Your task to perform on an android device: find snoozed emails in the gmail app Image 0: 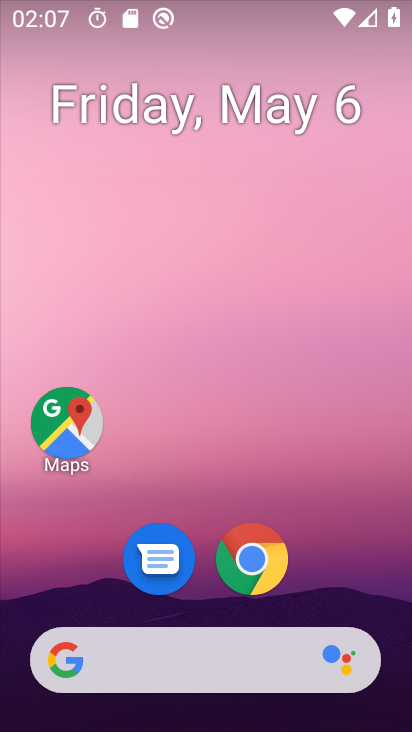
Step 0: drag from (256, 578) to (231, 53)
Your task to perform on an android device: find snoozed emails in the gmail app Image 1: 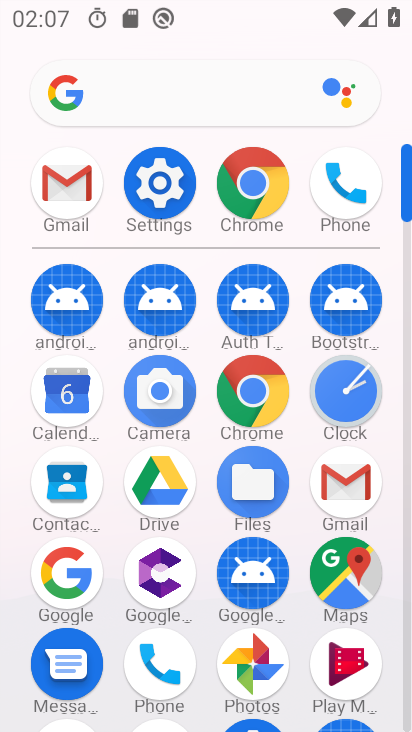
Step 1: click (338, 472)
Your task to perform on an android device: find snoozed emails in the gmail app Image 2: 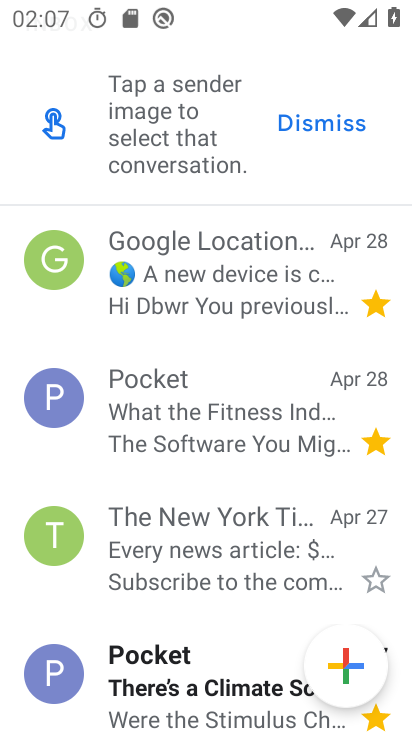
Step 2: drag from (265, 190) to (266, 655)
Your task to perform on an android device: find snoozed emails in the gmail app Image 3: 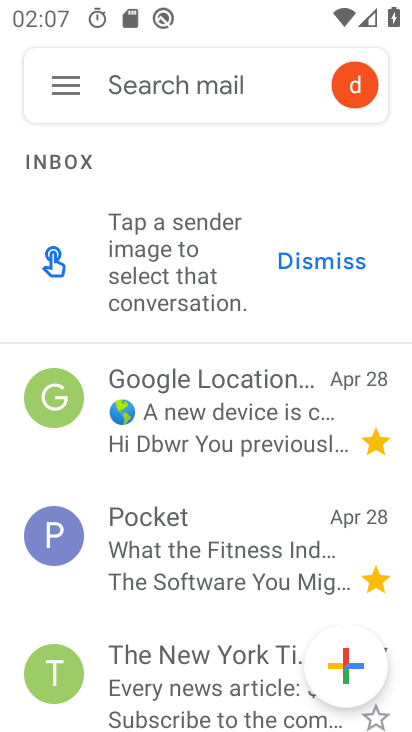
Step 3: drag from (217, 684) to (230, 131)
Your task to perform on an android device: find snoozed emails in the gmail app Image 4: 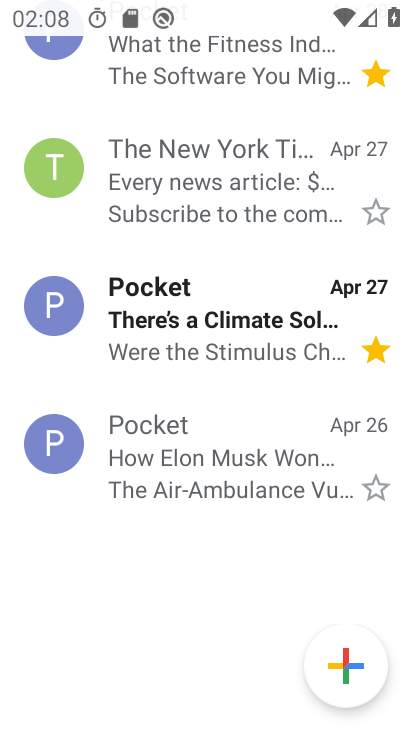
Step 4: click (229, 197)
Your task to perform on an android device: find snoozed emails in the gmail app Image 5: 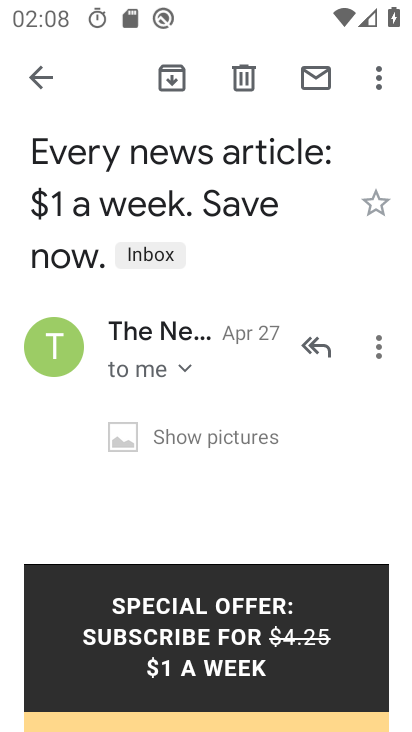
Step 5: drag from (375, 77) to (335, 189)
Your task to perform on an android device: find snoozed emails in the gmail app Image 6: 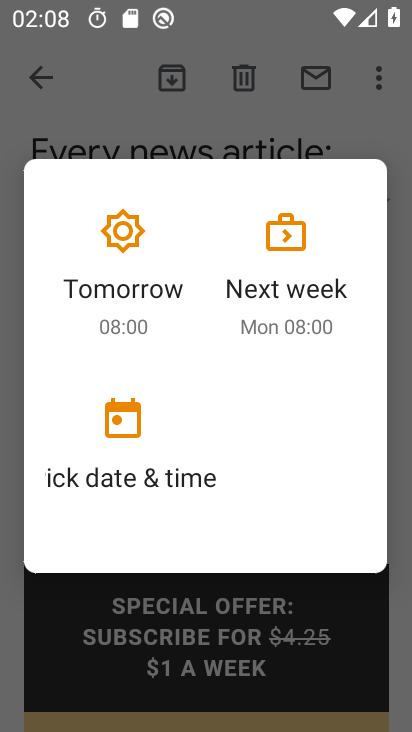
Step 6: click (105, 100)
Your task to perform on an android device: find snoozed emails in the gmail app Image 7: 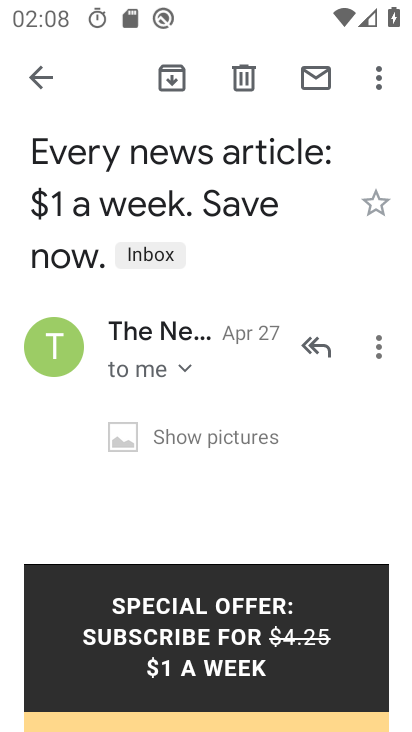
Step 7: click (37, 78)
Your task to perform on an android device: find snoozed emails in the gmail app Image 8: 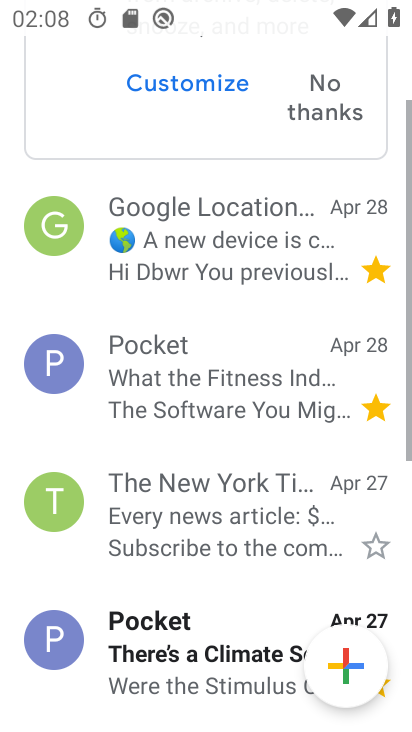
Step 8: click (251, 397)
Your task to perform on an android device: find snoozed emails in the gmail app Image 9: 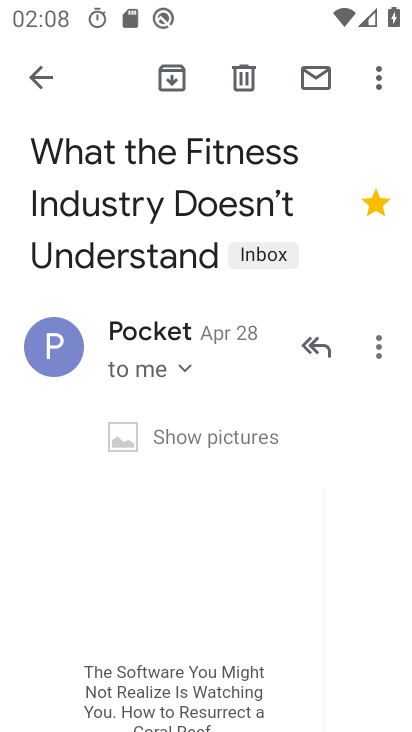
Step 9: drag from (372, 85) to (252, 179)
Your task to perform on an android device: find snoozed emails in the gmail app Image 10: 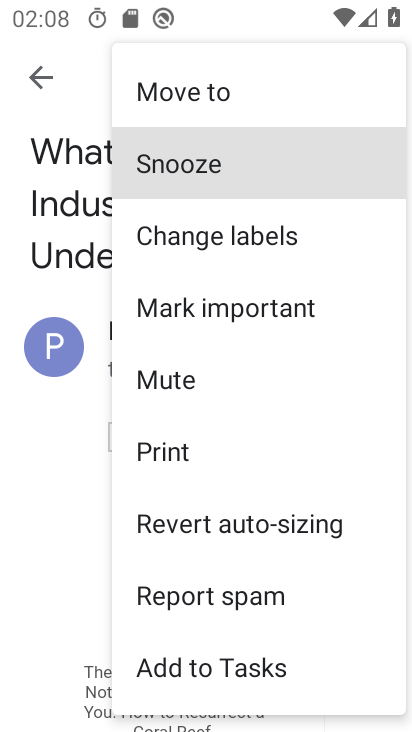
Step 10: click (252, 179)
Your task to perform on an android device: find snoozed emails in the gmail app Image 11: 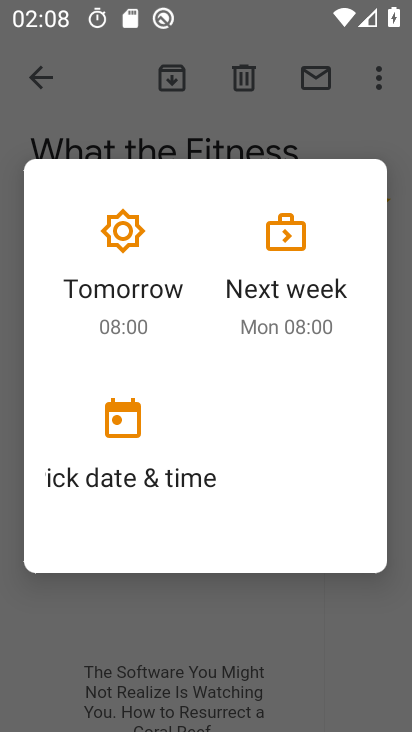
Step 11: click (298, 231)
Your task to perform on an android device: find snoozed emails in the gmail app Image 12: 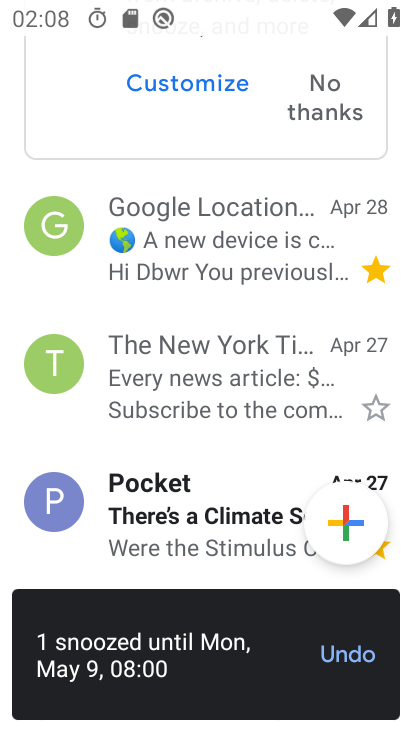
Step 12: task complete